Your task to perform on an android device: toggle show notifications on the lock screen Image 0: 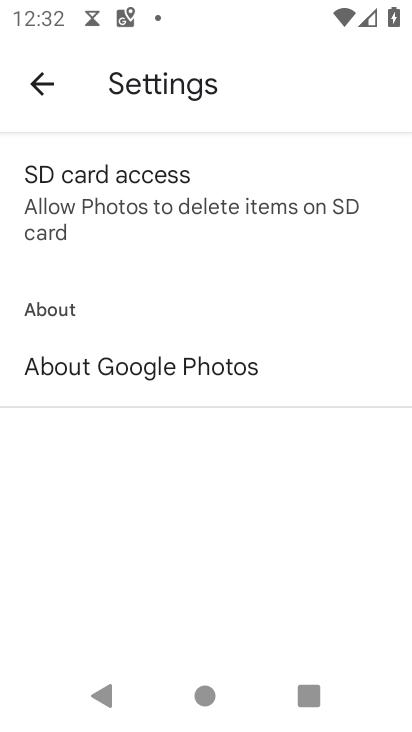
Step 0: press home button
Your task to perform on an android device: toggle show notifications on the lock screen Image 1: 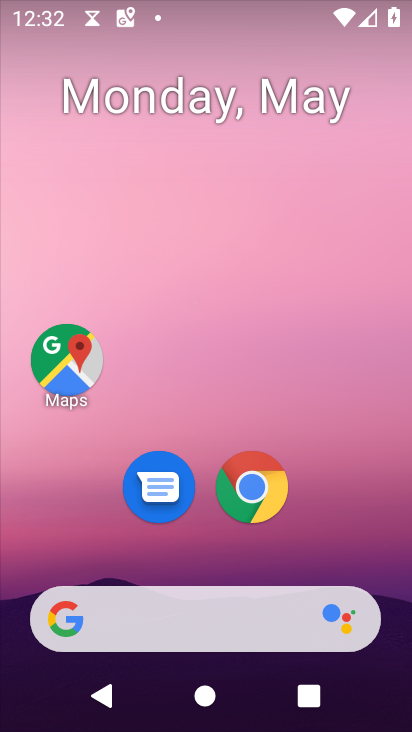
Step 1: drag from (212, 554) to (220, 3)
Your task to perform on an android device: toggle show notifications on the lock screen Image 2: 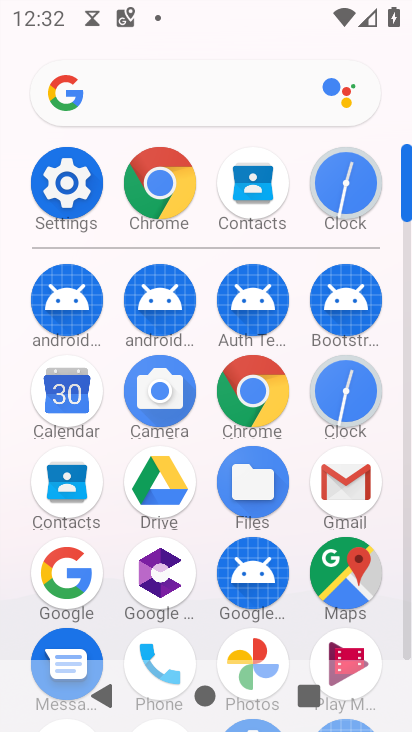
Step 2: click (62, 189)
Your task to perform on an android device: toggle show notifications on the lock screen Image 3: 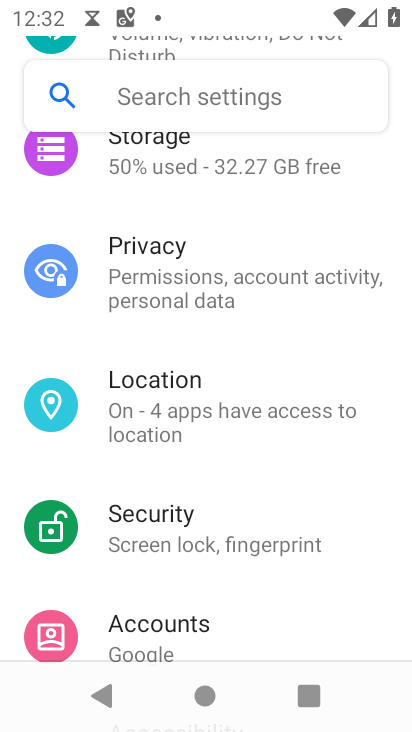
Step 3: drag from (234, 337) to (242, 633)
Your task to perform on an android device: toggle show notifications on the lock screen Image 4: 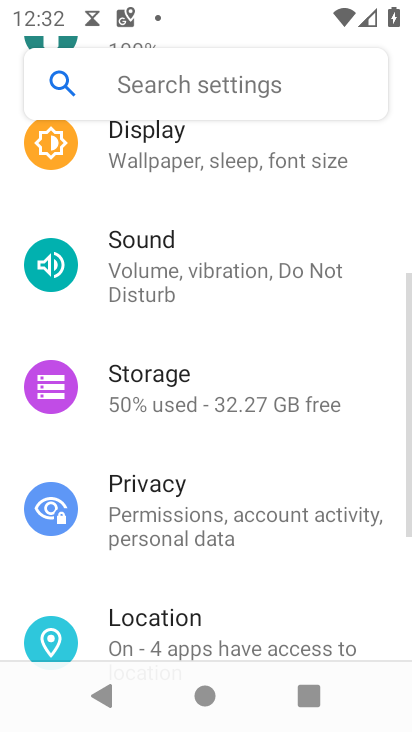
Step 4: drag from (232, 330) to (255, 634)
Your task to perform on an android device: toggle show notifications on the lock screen Image 5: 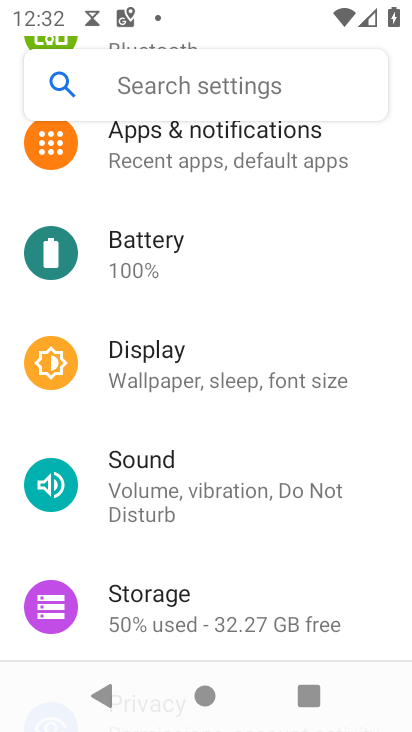
Step 5: click (215, 166)
Your task to perform on an android device: toggle show notifications on the lock screen Image 6: 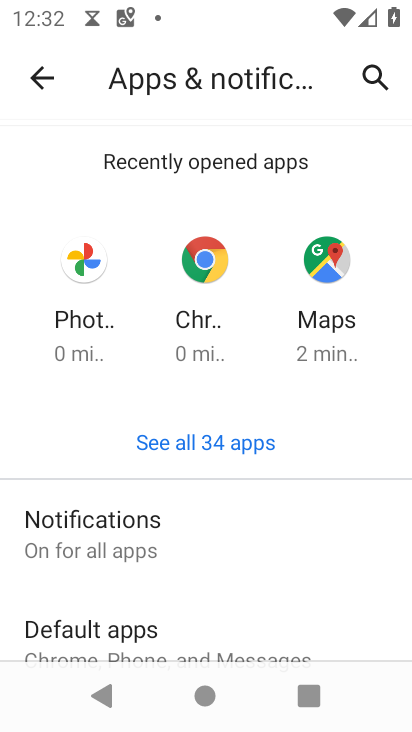
Step 6: click (60, 529)
Your task to perform on an android device: toggle show notifications on the lock screen Image 7: 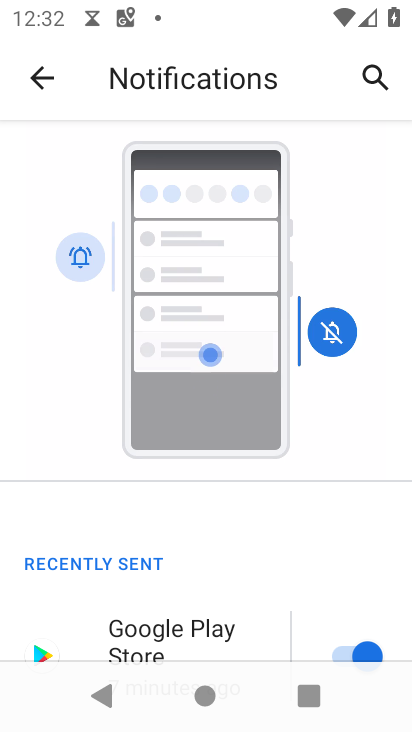
Step 7: drag from (154, 613) to (144, 187)
Your task to perform on an android device: toggle show notifications on the lock screen Image 8: 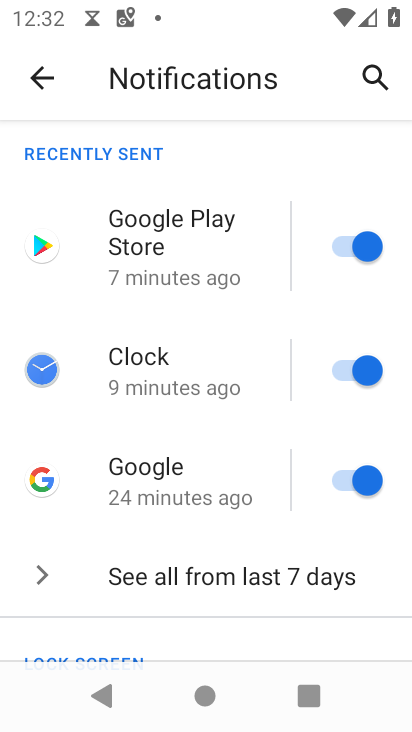
Step 8: drag from (179, 569) to (191, 188)
Your task to perform on an android device: toggle show notifications on the lock screen Image 9: 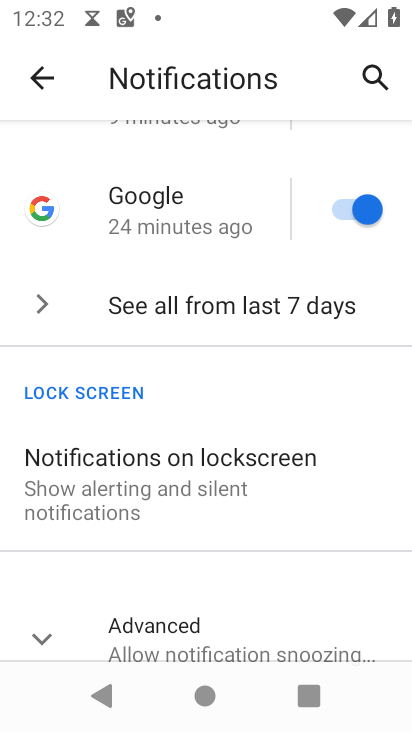
Step 9: click (240, 491)
Your task to perform on an android device: toggle show notifications on the lock screen Image 10: 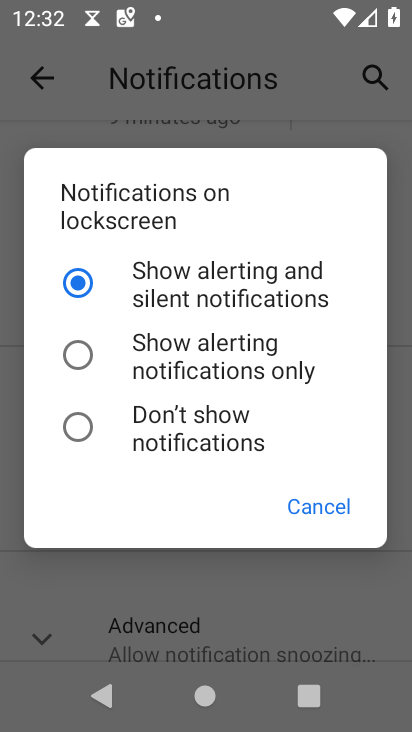
Step 10: click (199, 334)
Your task to perform on an android device: toggle show notifications on the lock screen Image 11: 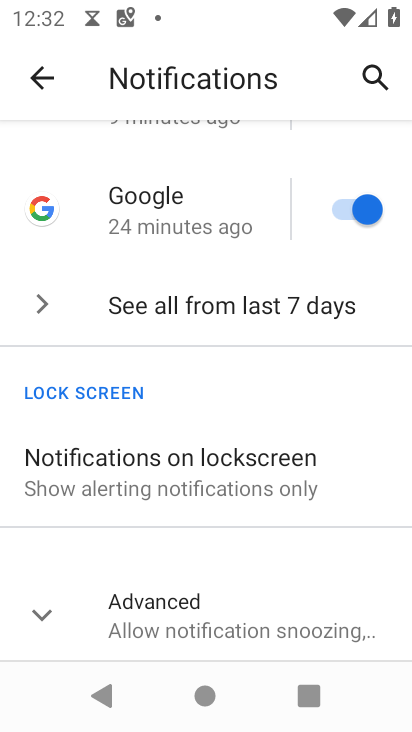
Step 11: task complete